Your task to perform on an android device: toggle notifications settings in the gmail app Image 0: 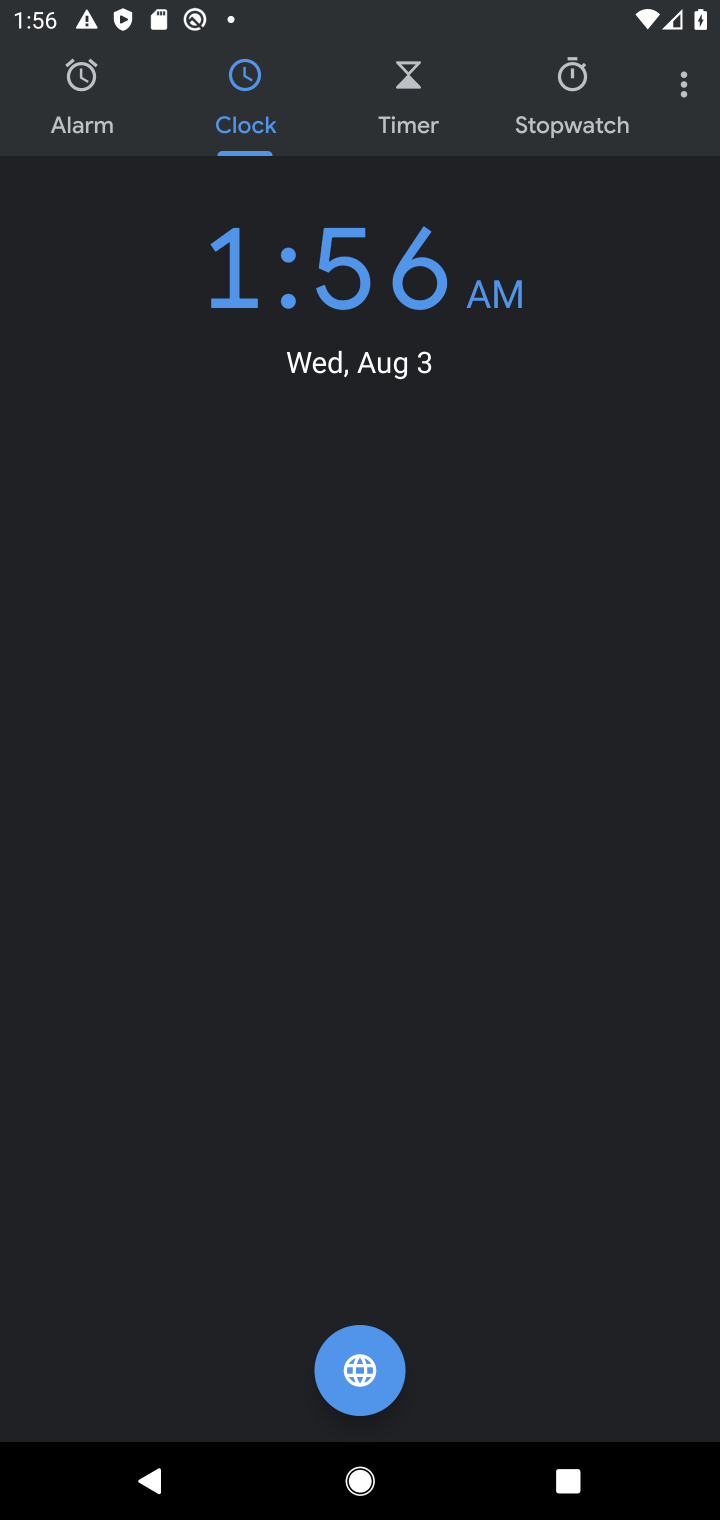
Step 0: press back button
Your task to perform on an android device: toggle notifications settings in the gmail app Image 1: 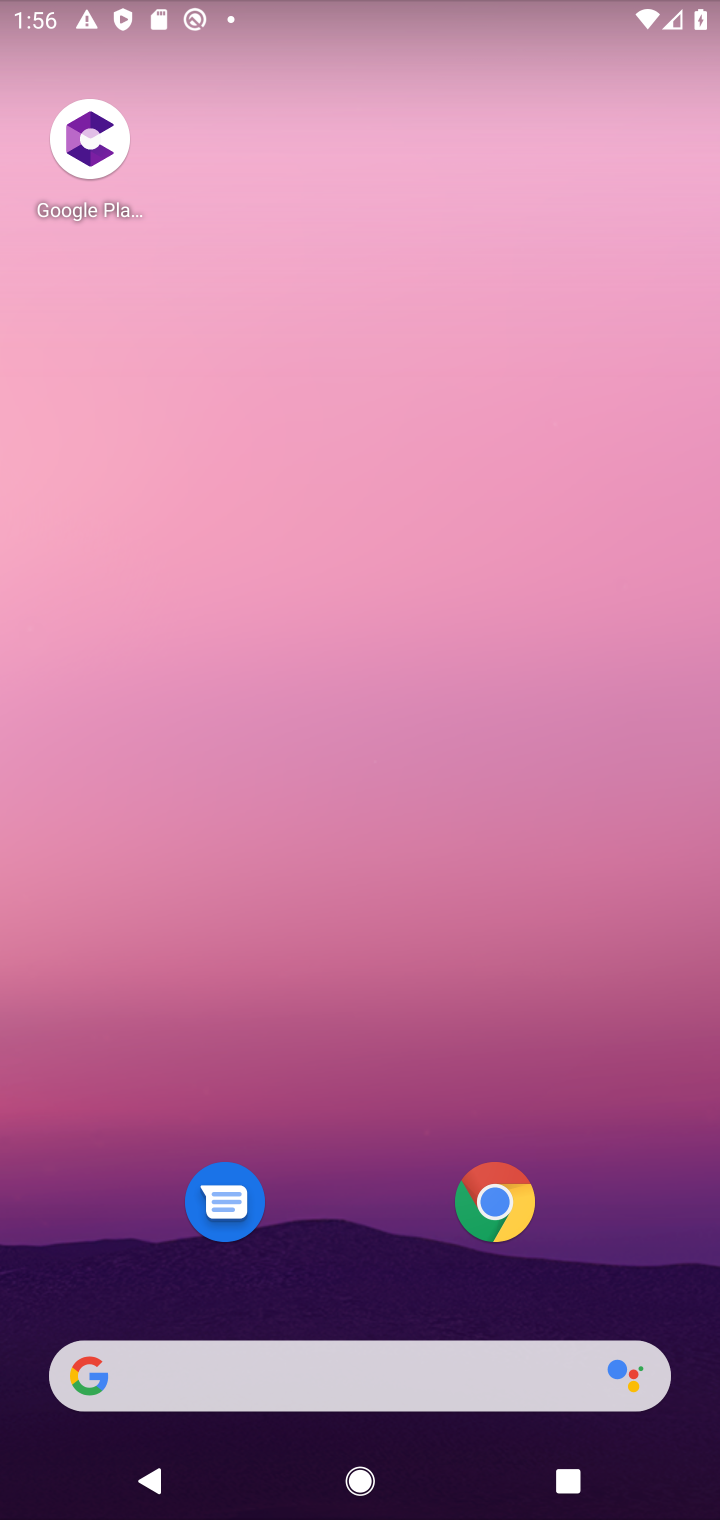
Step 1: drag from (374, 1084) to (533, 37)
Your task to perform on an android device: toggle notifications settings in the gmail app Image 2: 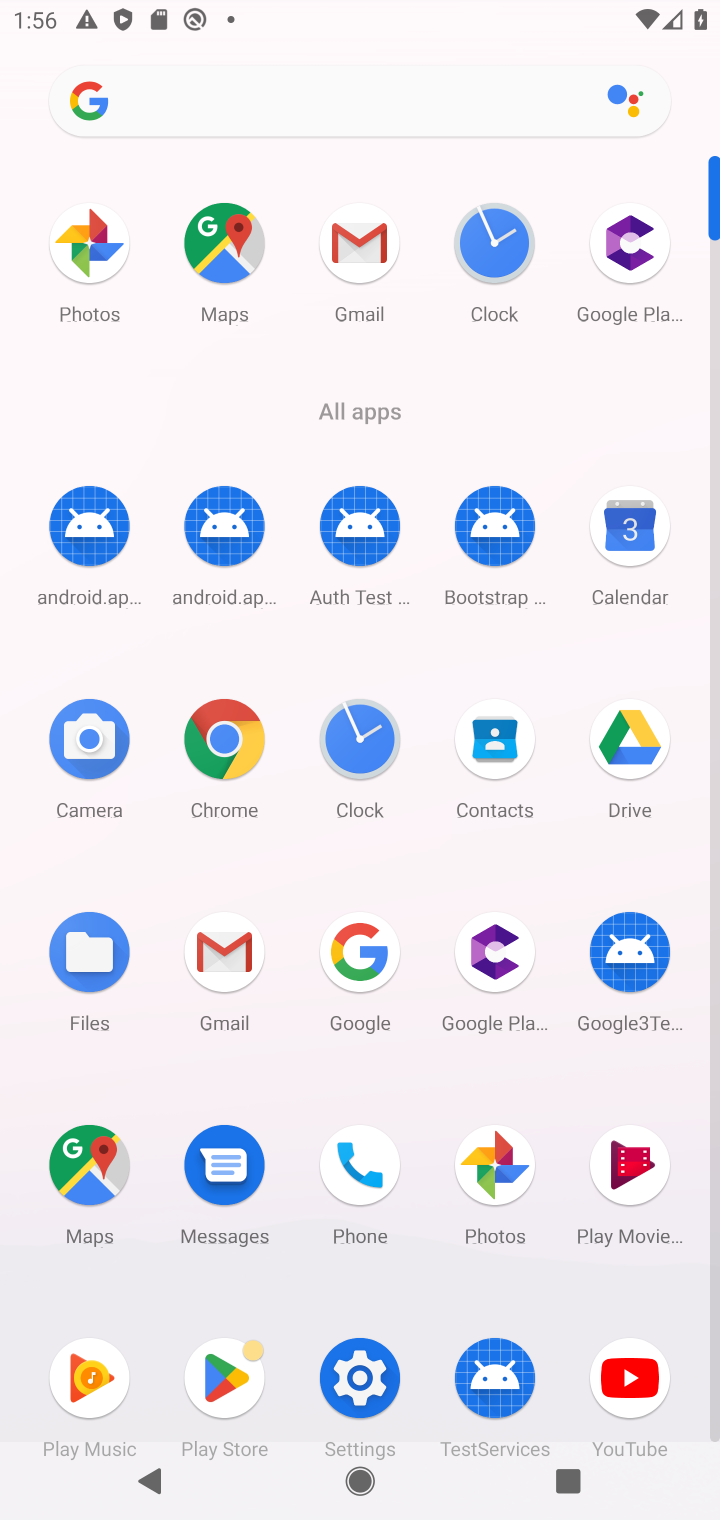
Step 2: click (353, 259)
Your task to perform on an android device: toggle notifications settings in the gmail app Image 3: 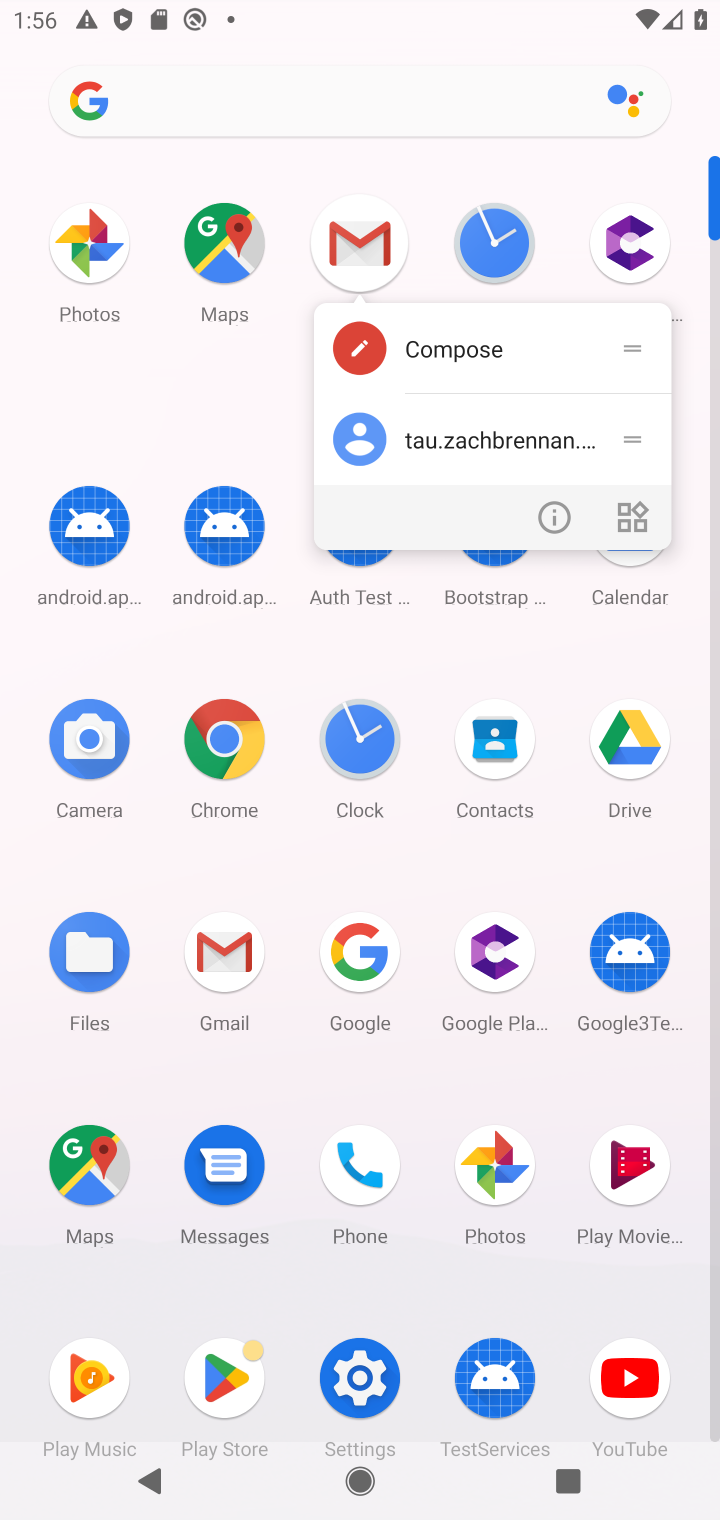
Step 3: click (559, 524)
Your task to perform on an android device: toggle notifications settings in the gmail app Image 4: 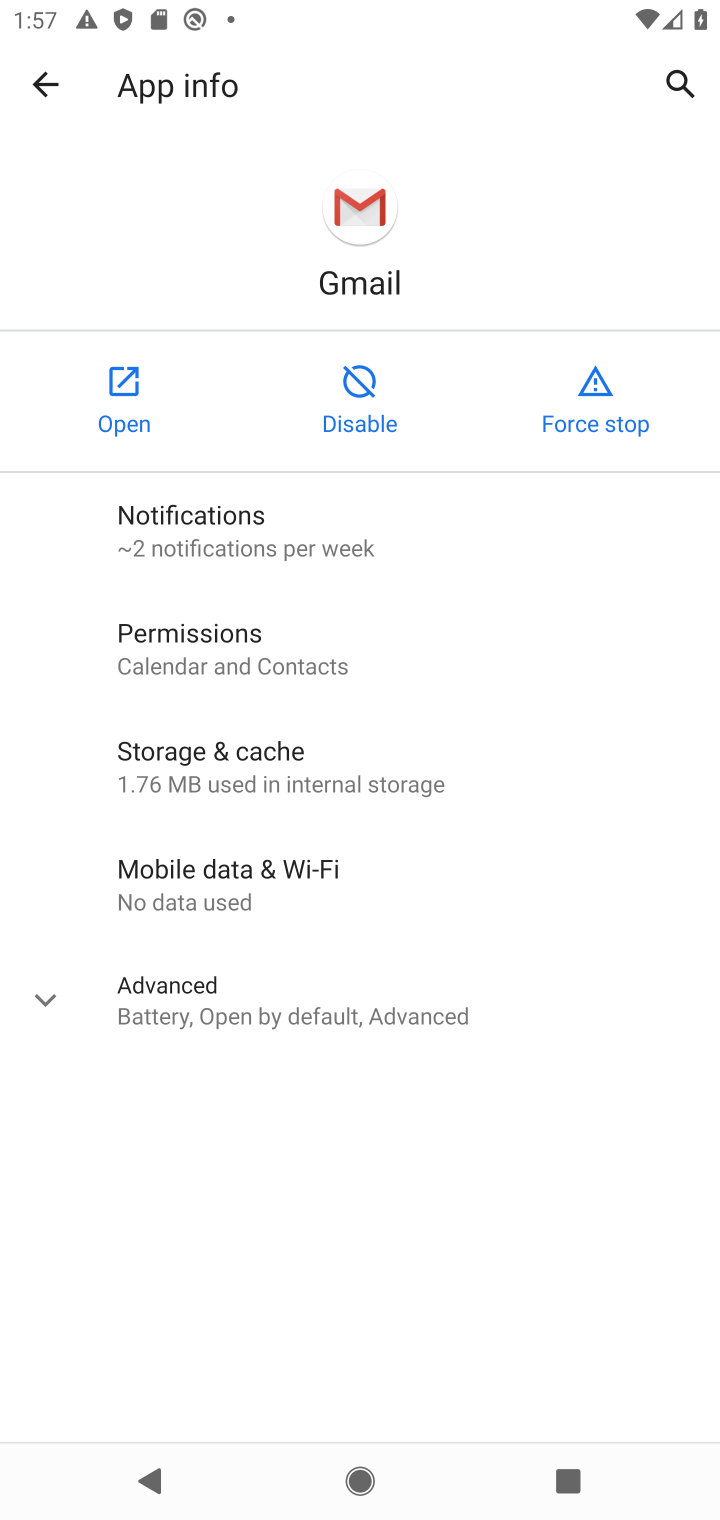
Step 4: click (202, 520)
Your task to perform on an android device: toggle notifications settings in the gmail app Image 5: 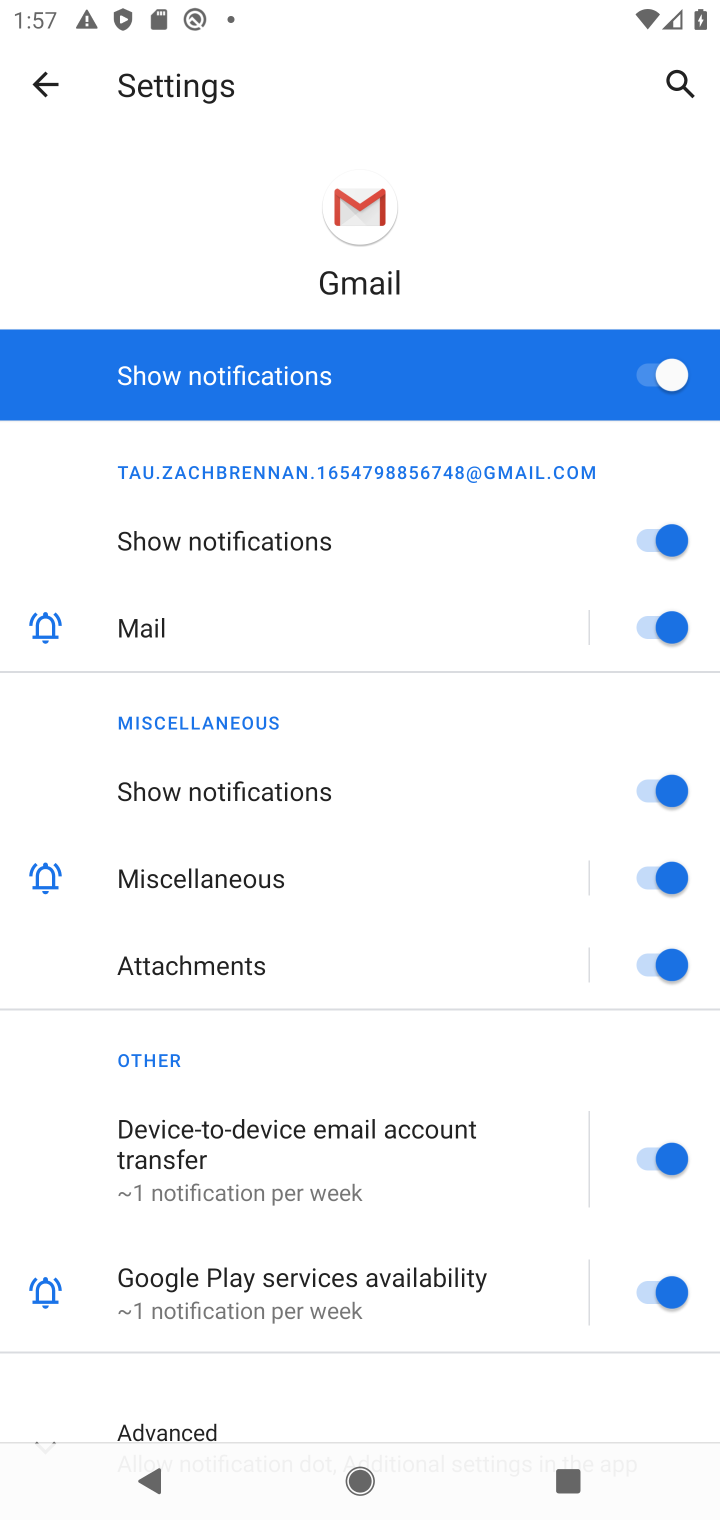
Step 5: click (671, 386)
Your task to perform on an android device: toggle notifications settings in the gmail app Image 6: 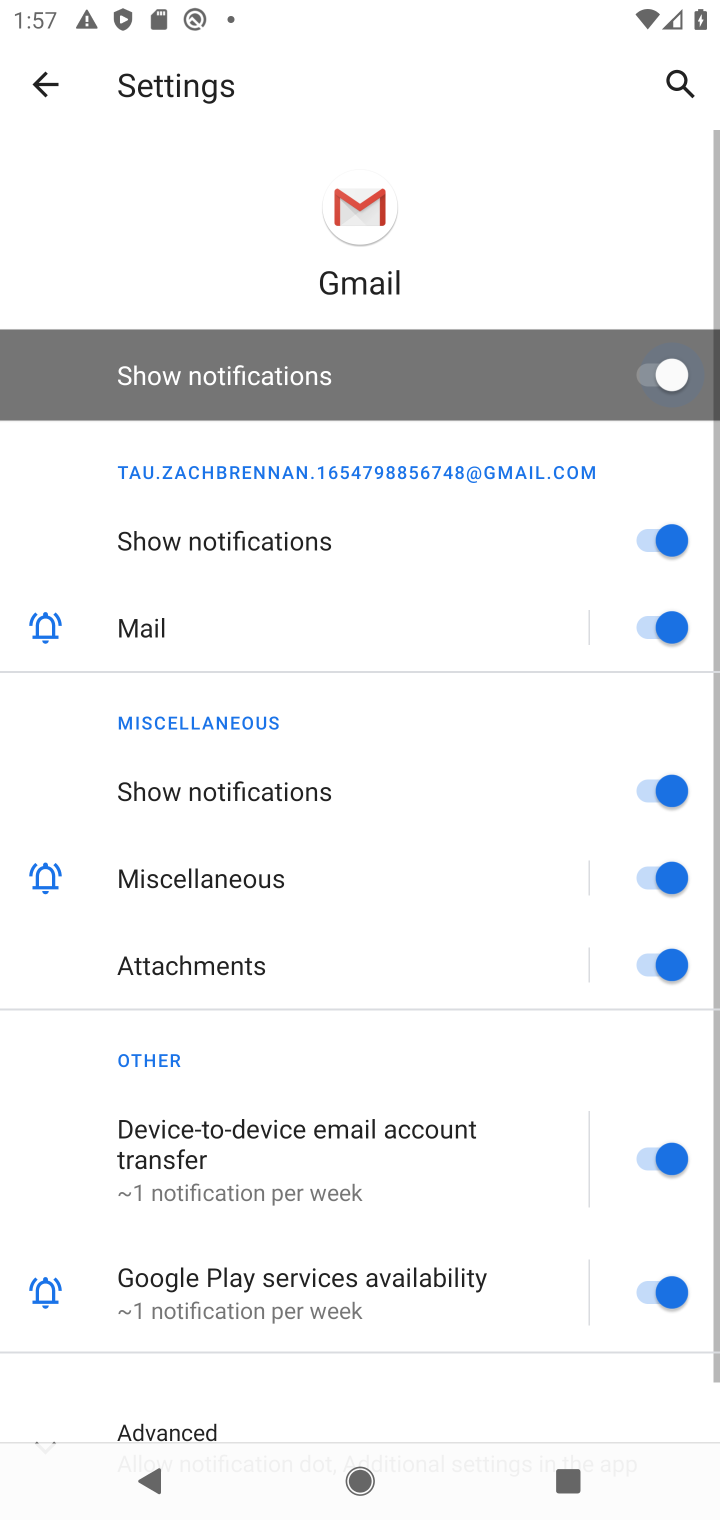
Step 6: task complete